Your task to perform on an android device: Go to internet settings Image 0: 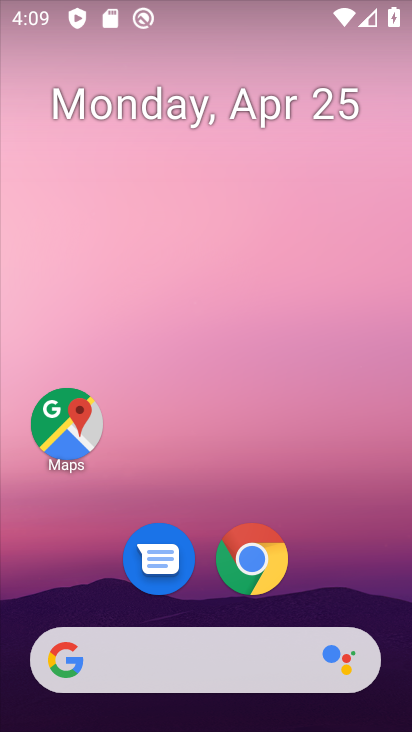
Step 0: drag from (324, 544) to (256, 84)
Your task to perform on an android device: Go to internet settings Image 1: 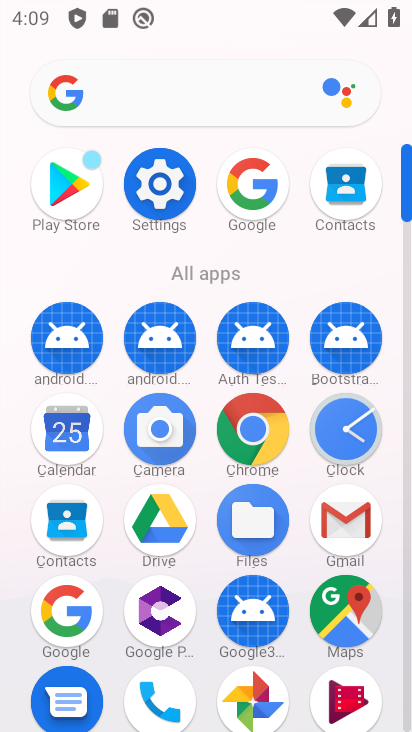
Step 1: click (160, 179)
Your task to perform on an android device: Go to internet settings Image 2: 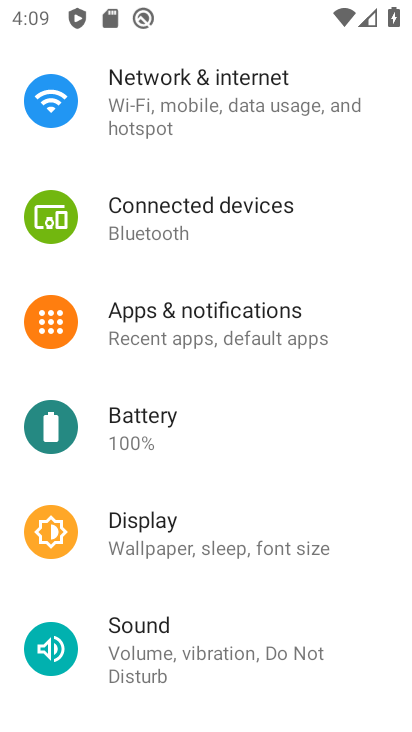
Step 2: click (213, 83)
Your task to perform on an android device: Go to internet settings Image 3: 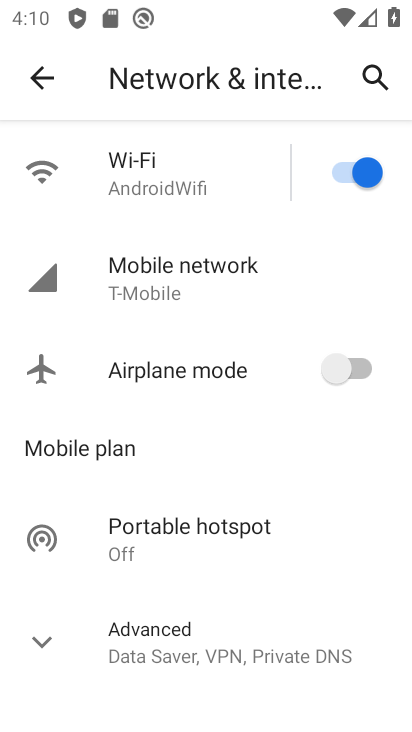
Step 3: task complete